Your task to perform on an android device: turn off priority inbox in the gmail app Image 0: 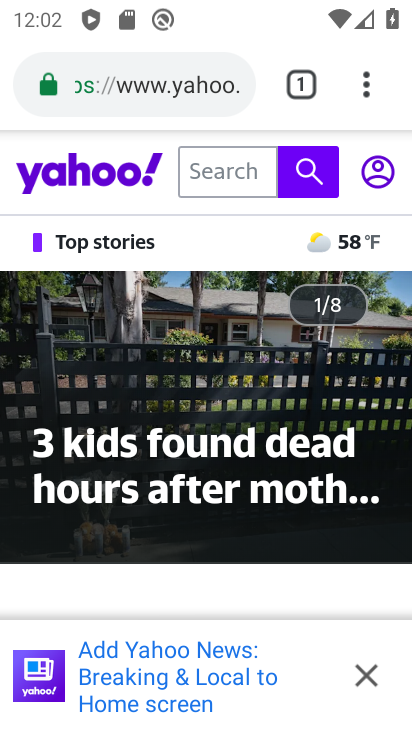
Step 0: press home button
Your task to perform on an android device: turn off priority inbox in the gmail app Image 1: 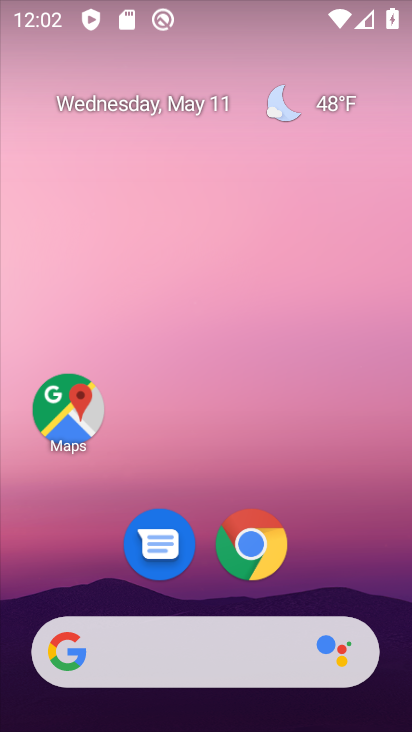
Step 1: drag from (192, 609) to (276, 130)
Your task to perform on an android device: turn off priority inbox in the gmail app Image 2: 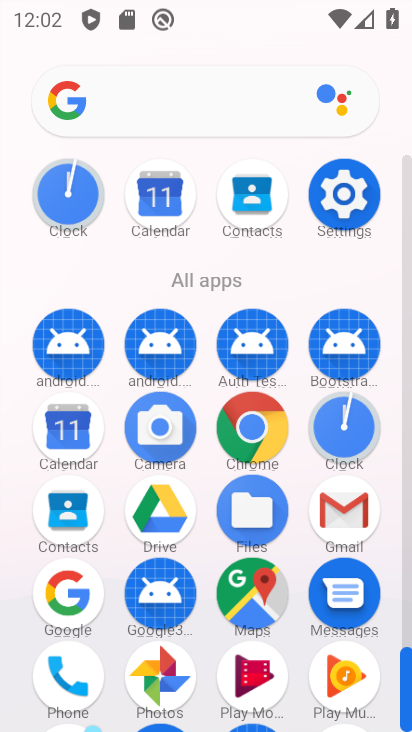
Step 2: click (357, 512)
Your task to perform on an android device: turn off priority inbox in the gmail app Image 3: 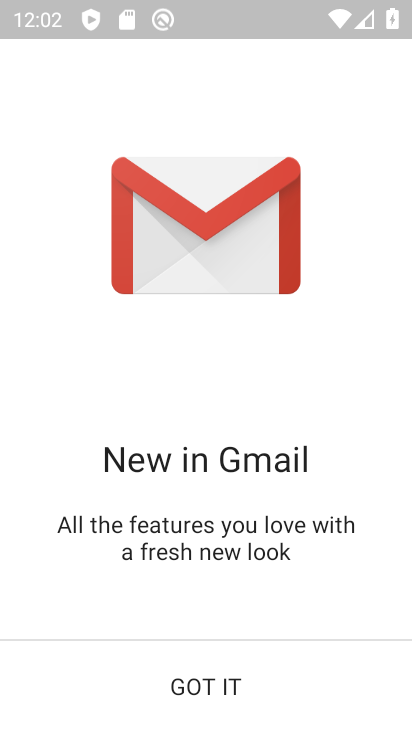
Step 3: click (234, 703)
Your task to perform on an android device: turn off priority inbox in the gmail app Image 4: 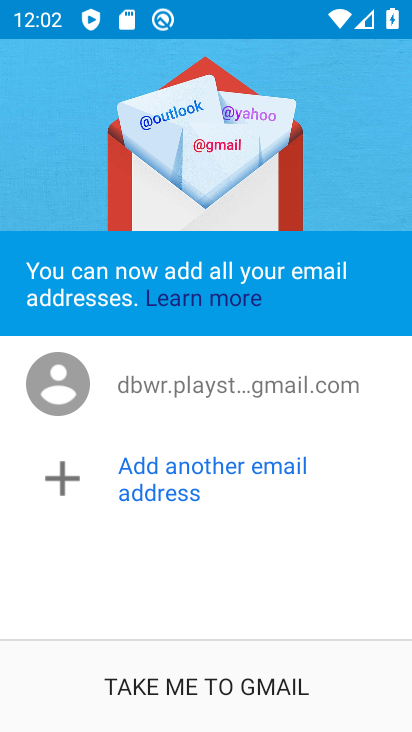
Step 4: click (225, 703)
Your task to perform on an android device: turn off priority inbox in the gmail app Image 5: 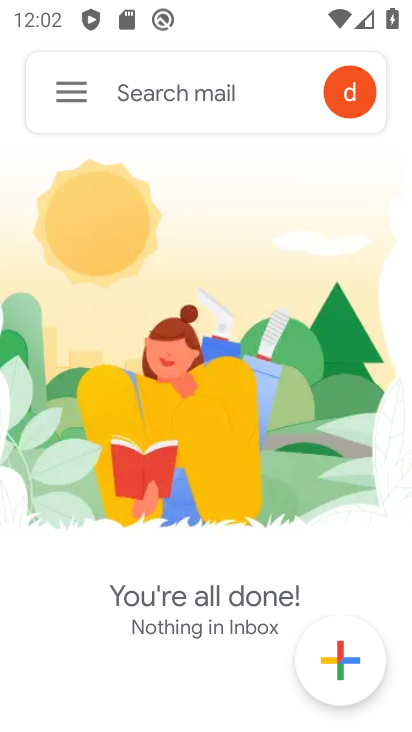
Step 5: click (77, 91)
Your task to perform on an android device: turn off priority inbox in the gmail app Image 6: 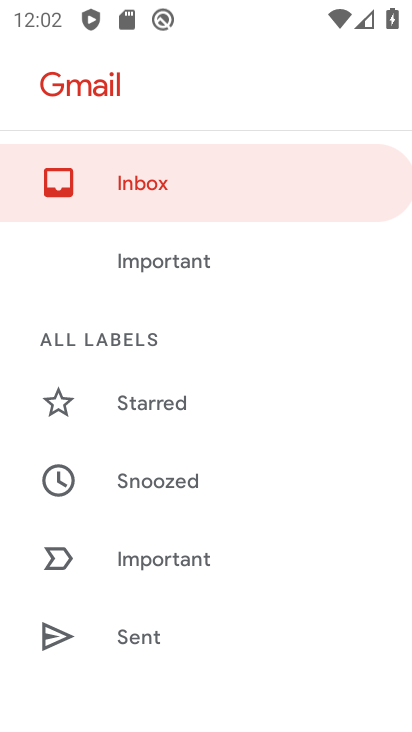
Step 6: drag from (157, 618) to (264, 253)
Your task to perform on an android device: turn off priority inbox in the gmail app Image 7: 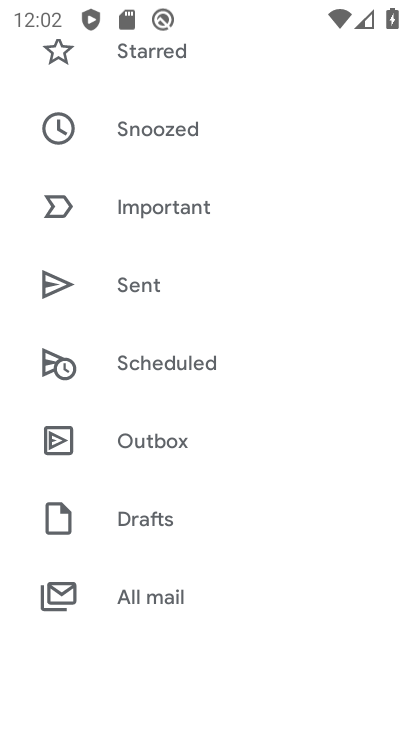
Step 7: drag from (231, 616) to (317, 202)
Your task to perform on an android device: turn off priority inbox in the gmail app Image 8: 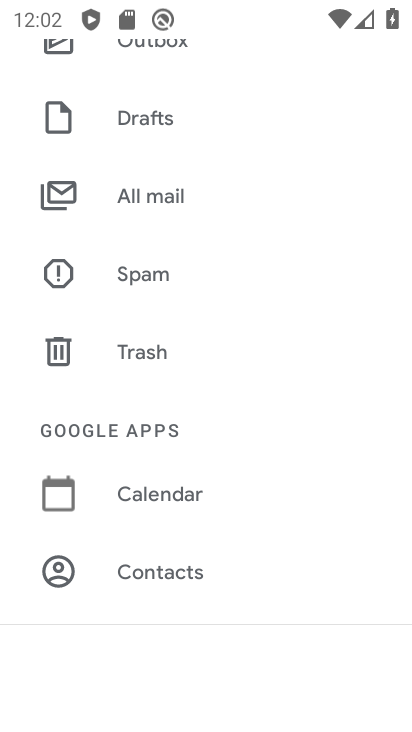
Step 8: drag from (179, 593) to (265, 227)
Your task to perform on an android device: turn off priority inbox in the gmail app Image 9: 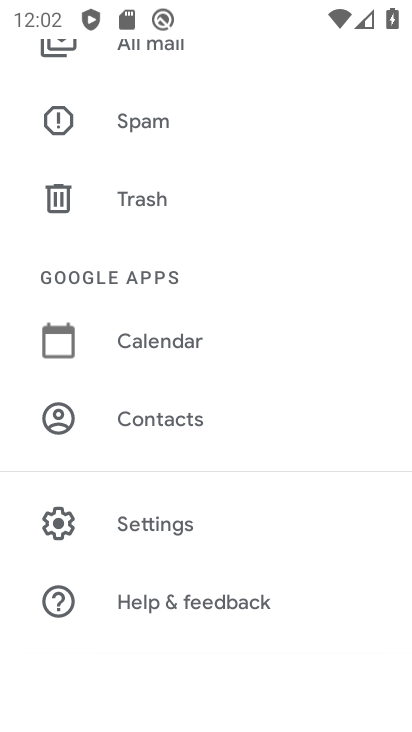
Step 9: click (165, 516)
Your task to perform on an android device: turn off priority inbox in the gmail app Image 10: 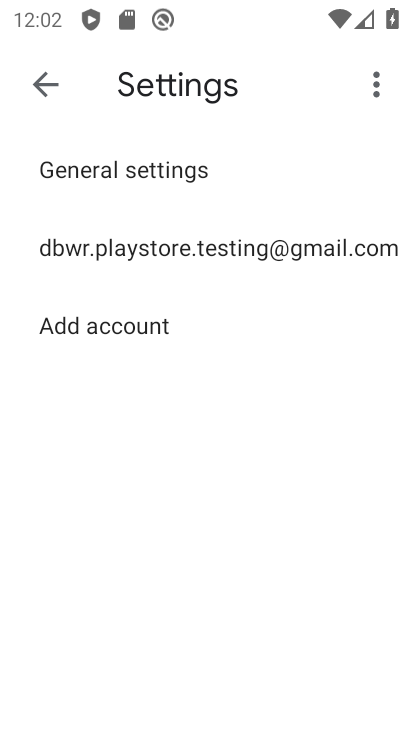
Step 10: click (234, 252)
Your task to perform on an android device: turn off priority inbox in the gmail app Image 11: 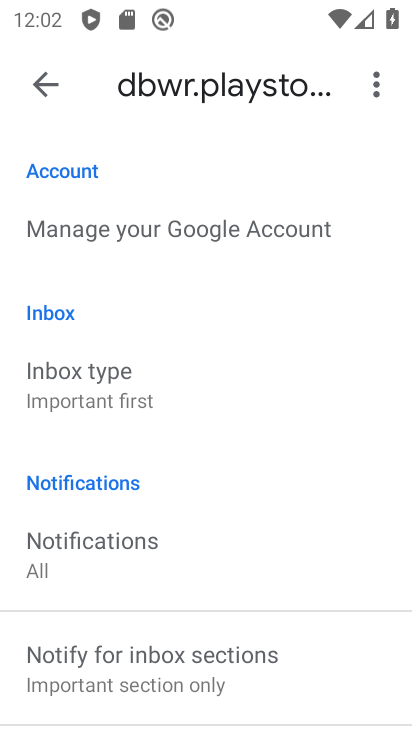
Step 11: click (187, 385)
Your task to perform on an android device: turn off priority inbox in the gmail app Image 12: 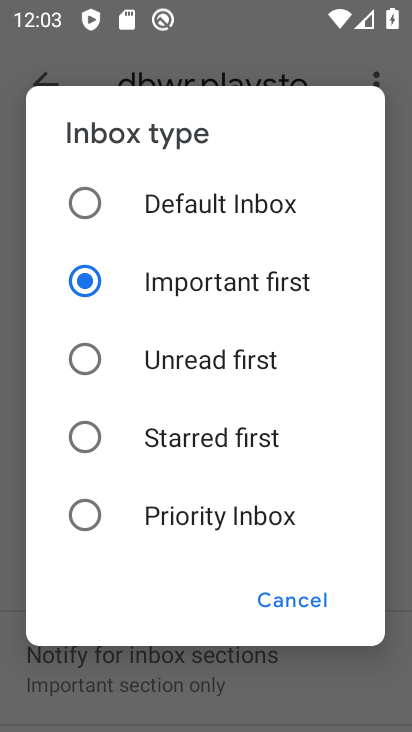
Step 12: task complete